Your task to perform on an android device: open app "NewsBreak: Local News & Alerts" Image 0: 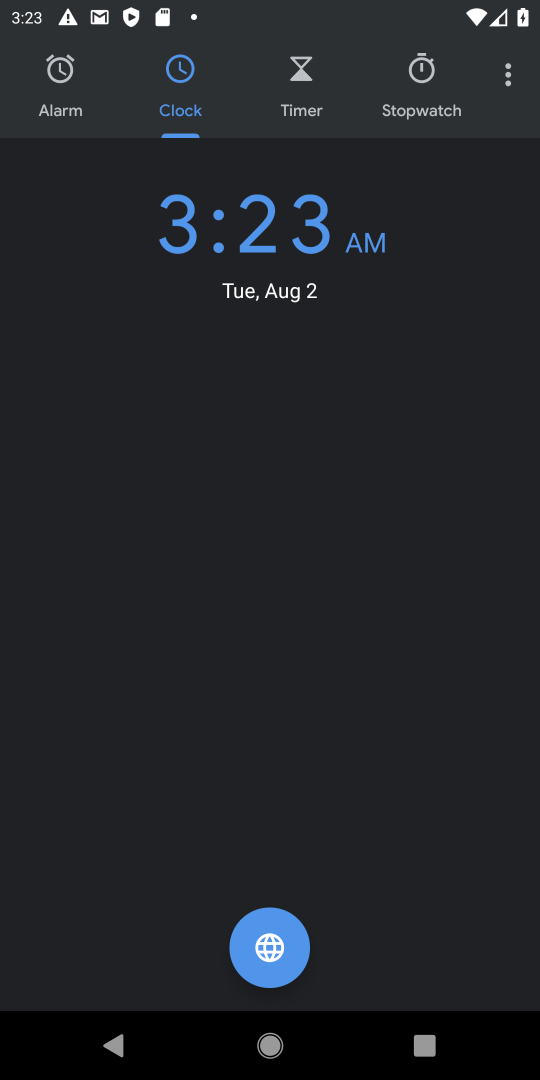
Step 0: press home button
Your task to perform on an android device: open app "NewsBreak: Local News & Alerts" Image 1: 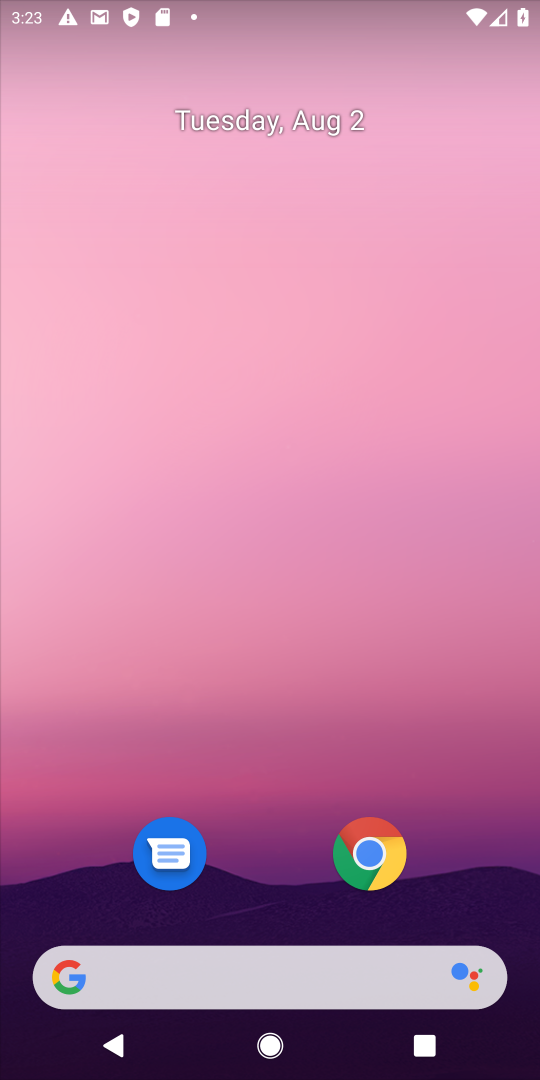
Step 1: drag from (308, 1045) to (308, 126)
Your task to perform on an android device: open app "NewsBreak: Local News & Alerts" Image 2: 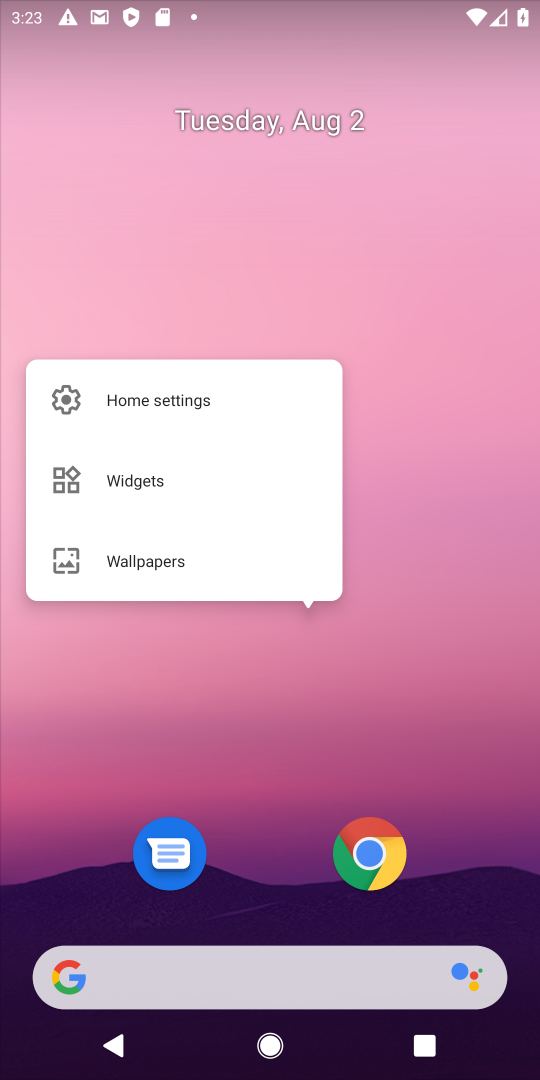
Step 2: click (297, 731)
Your task to perform on an android device: open app "NewsBreak: Local News & Alerts" Image 3: 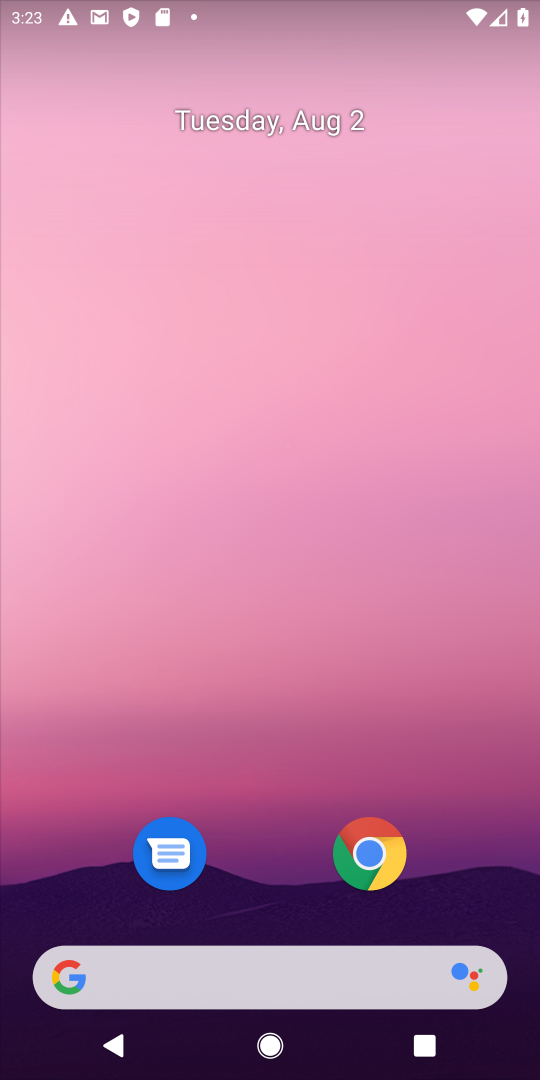
Step 3: click (233, 99)
Your task to perform on an android device: open app "NewsBreak: Local News & Alerts" Image 4: 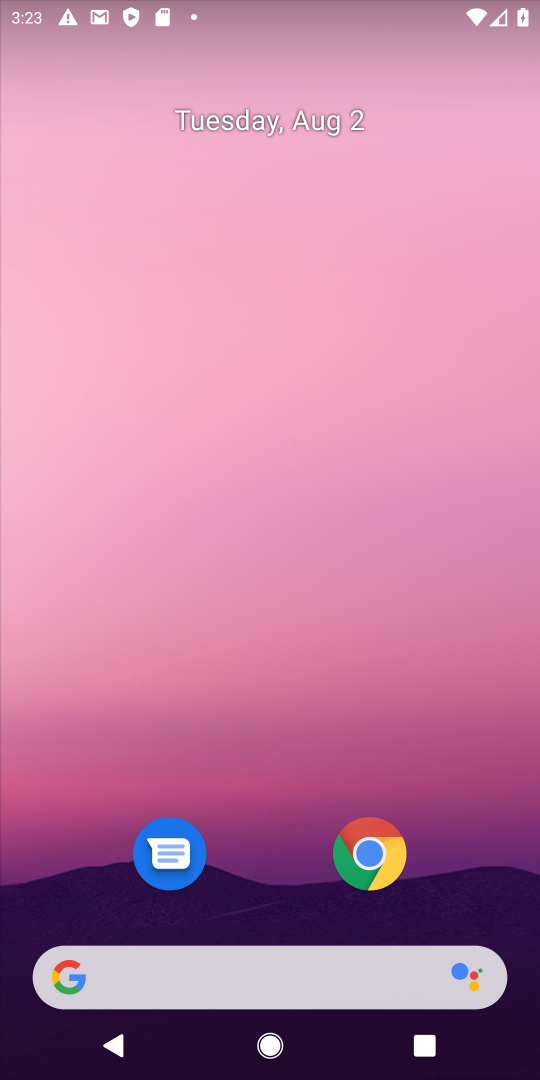
Step 4: drag from (299, 998) to (288, 617)
Your task to perform on an android device: open app "NewsBreak: Local News & Alerts" Image 5: 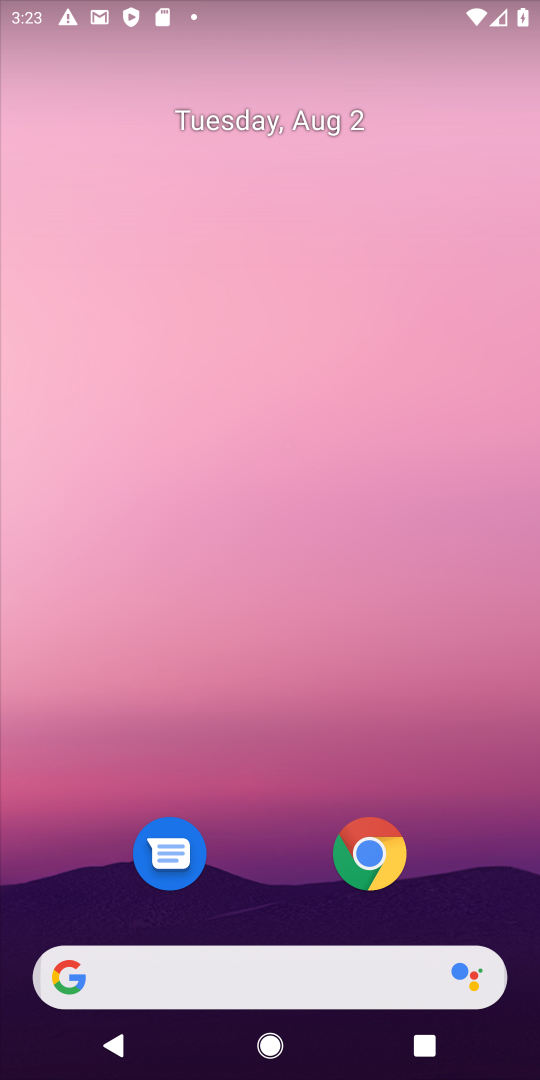
Step 5: click (283, 55)
Your task to perform on an android device: open app "NewsBreak: Local News & Alerts" Image 6: 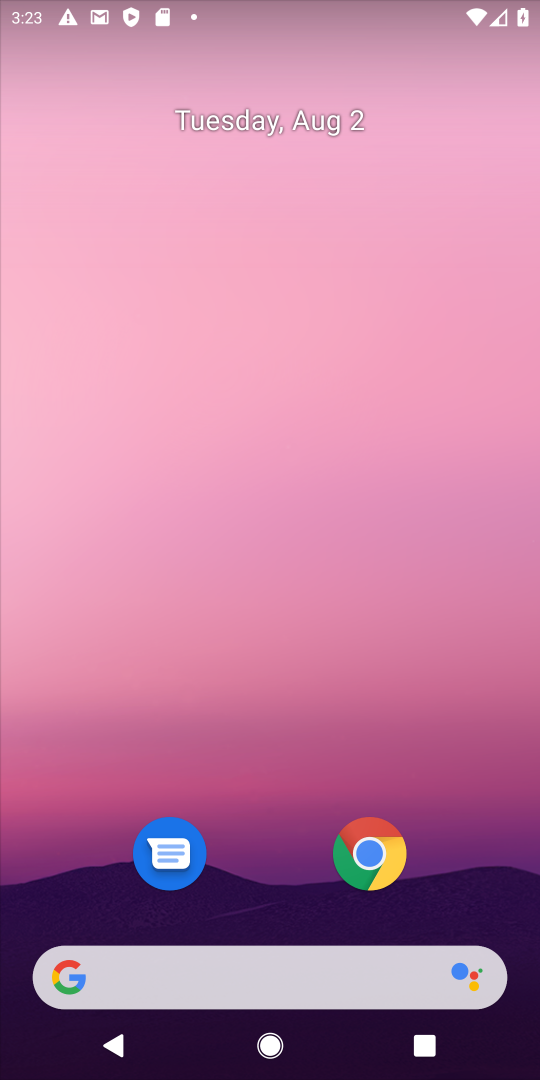
Step 6: drag from (306, 1068) to (306, 440)
Your task to perform on an android device: open app "NewsBreak: Local News & Alerts" Image 7: 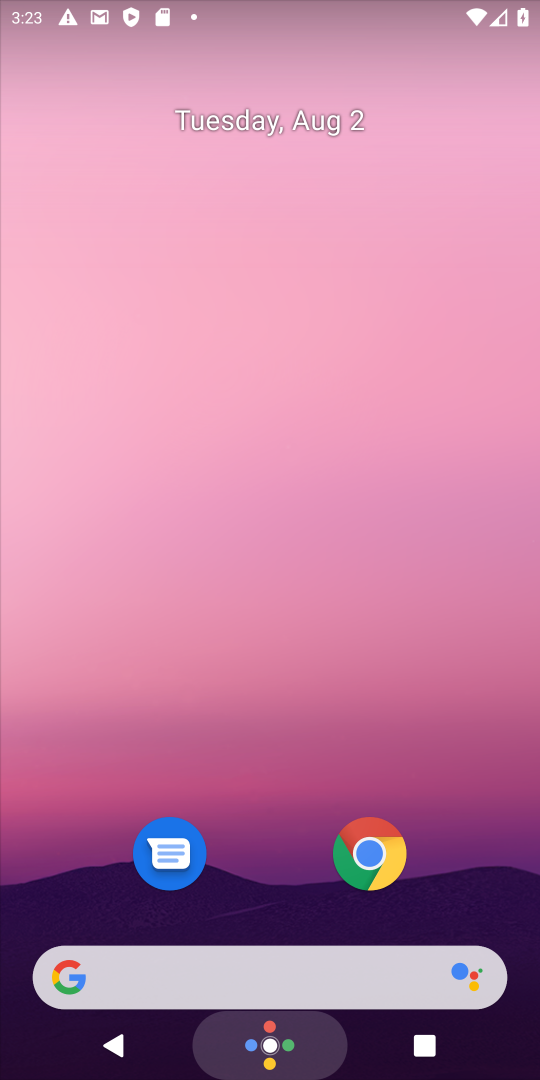
Step 7: click (306, 14)
Your task to perform on an android device: open app "NewsBreak: Local News & Alerts" Image 8: 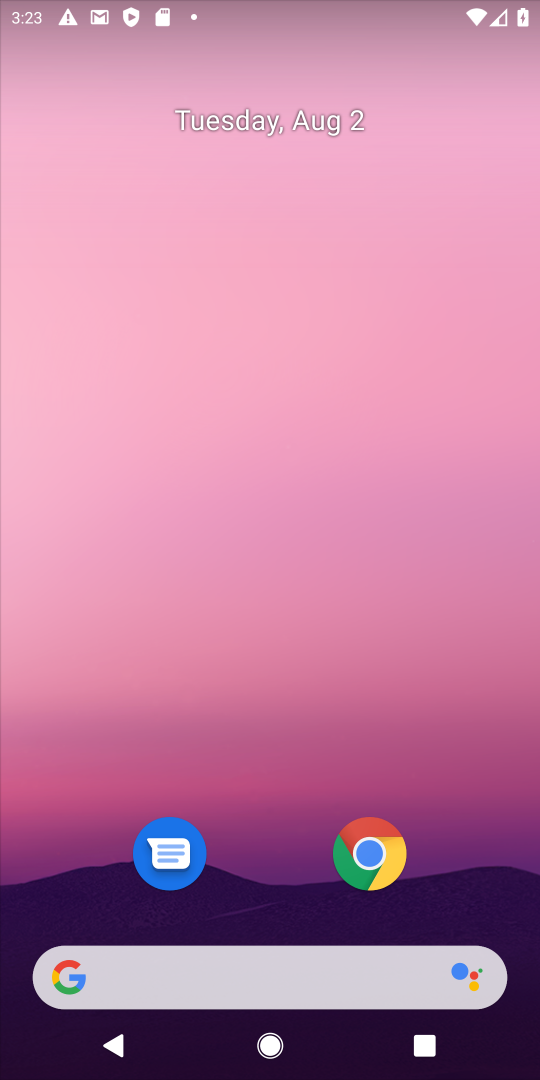
Step 8: drag from (317, 1005) to (317, 130)
Your task to perform on an android device: open app "NewsBreak: Local News & Alerts" Image 9: 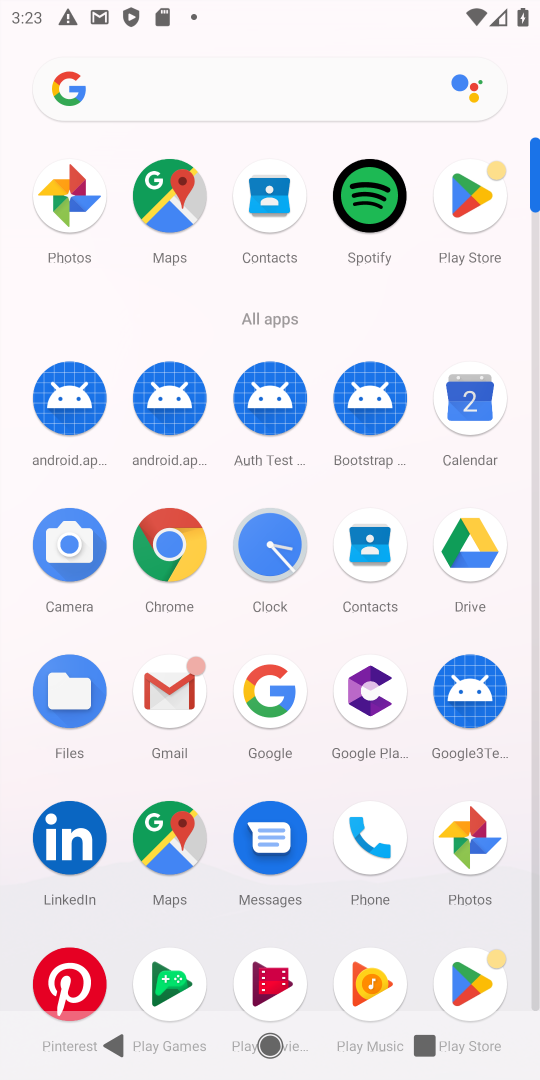
Step 9: click (466, 204)
Your task to perform on an android device: open app "NewsBreak: Local News & Alerts" Image 10: 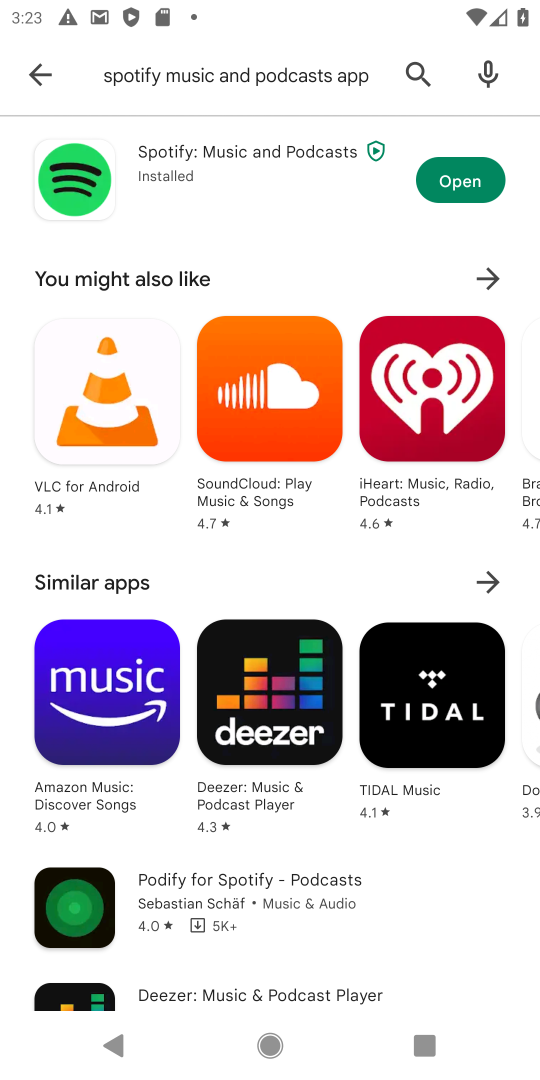
Step 10: click (420, 71)
Your task to perform on an android device: open app "NewsBreak: Local News & Alerts" Image 11: 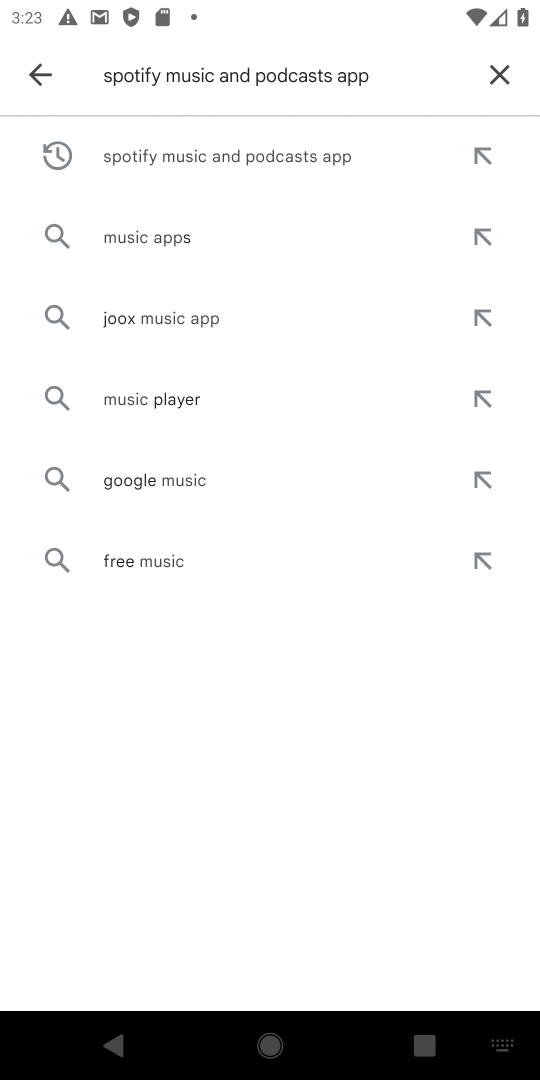
Step 11: click (500, 64)
Your task to perform on an android device: open app "NewsBreak: Local News & Alerts" Image 12: 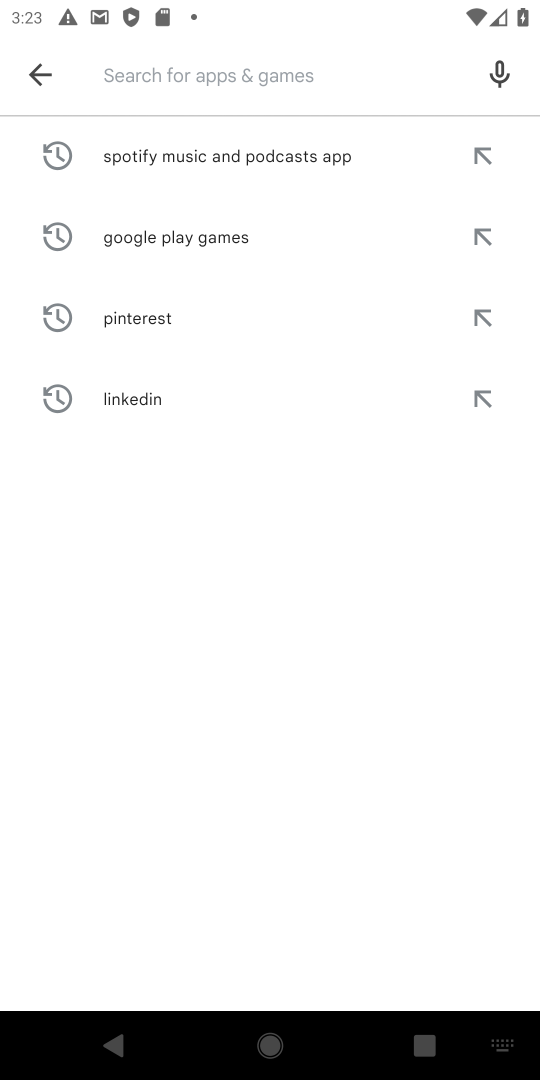
Step 12: type "NewsBreak: Local News & Alerts"
Your task to perform on an android device: open app "NewsBreak: Local News & Alerts" Image 13: 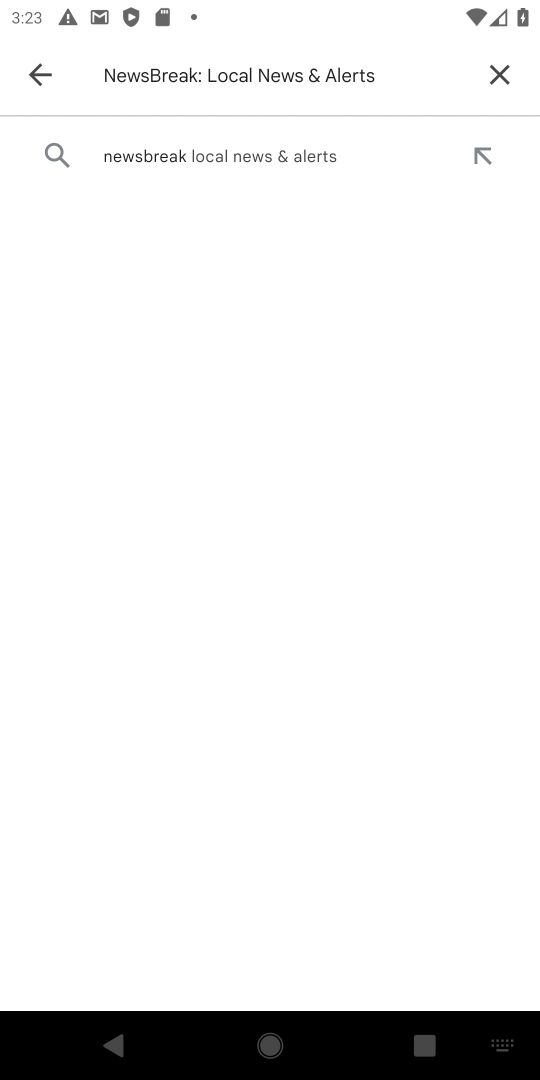
Step 13: click (297, 152)
Your task to perform on an android device: open app "NewsBreak: Local News & Alerts" Image 14: 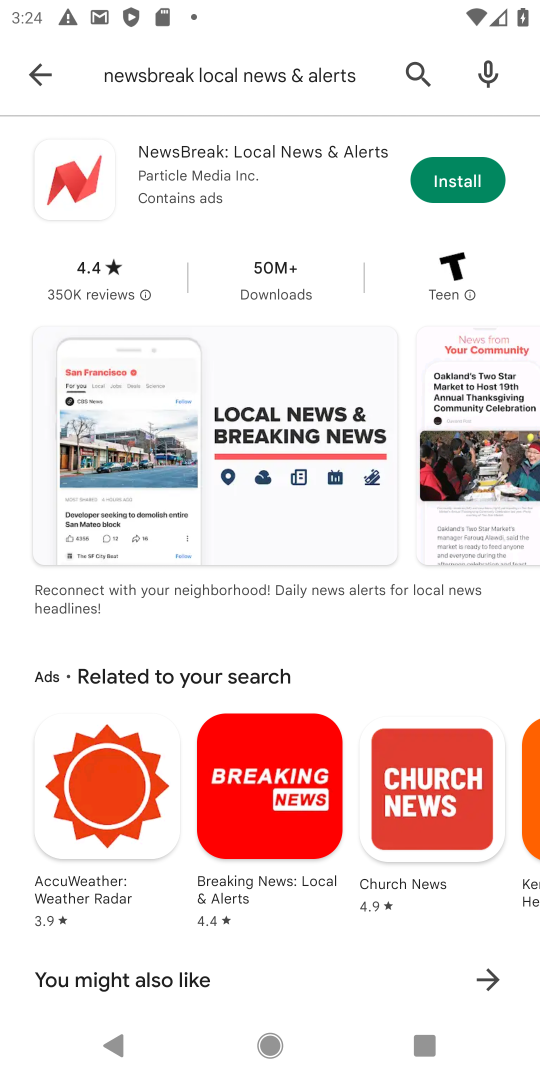
Step 14: task complete